Your task to perform on an android device: Add "amazon basics triple a" to the cart on bestbuy Image 0: 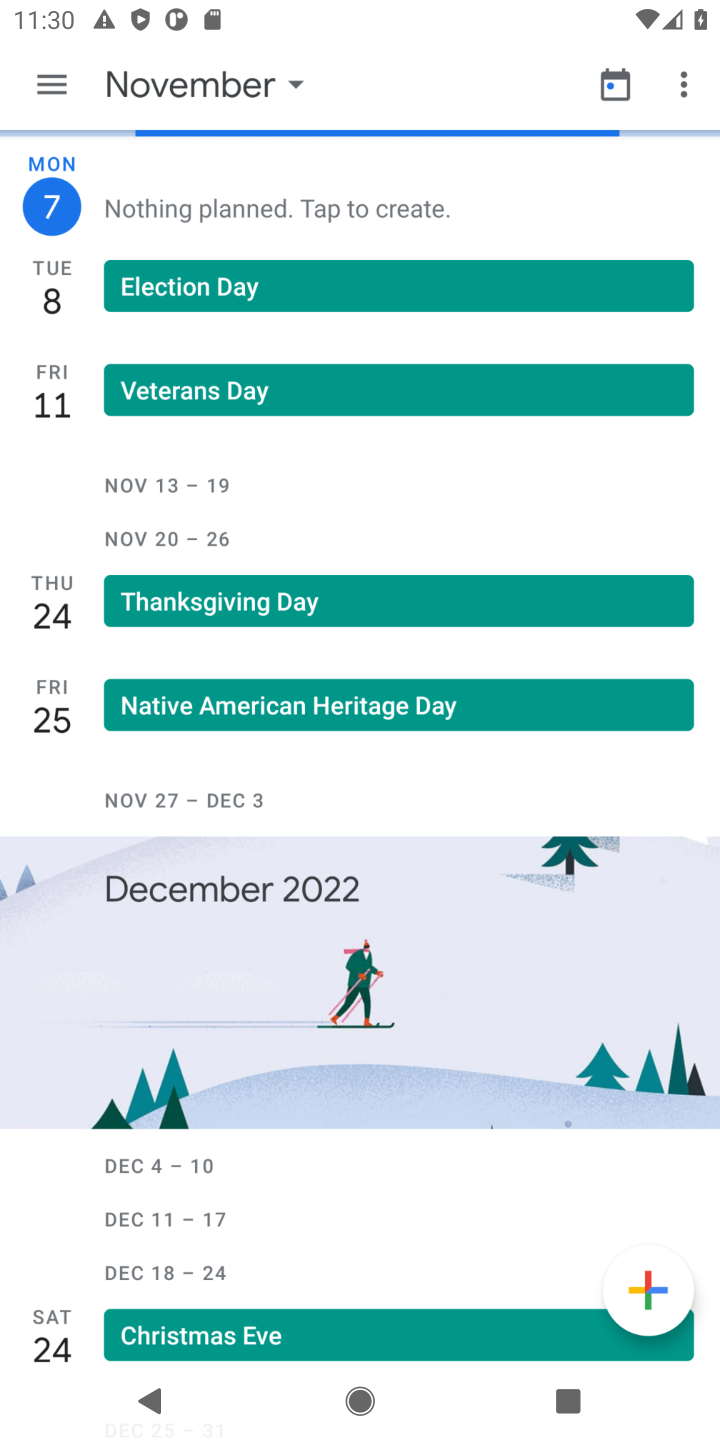
Step 0: press home button
Your task to perform on an android device: Add "amazon basics triple a" to the cart on bestbuy Image 1: 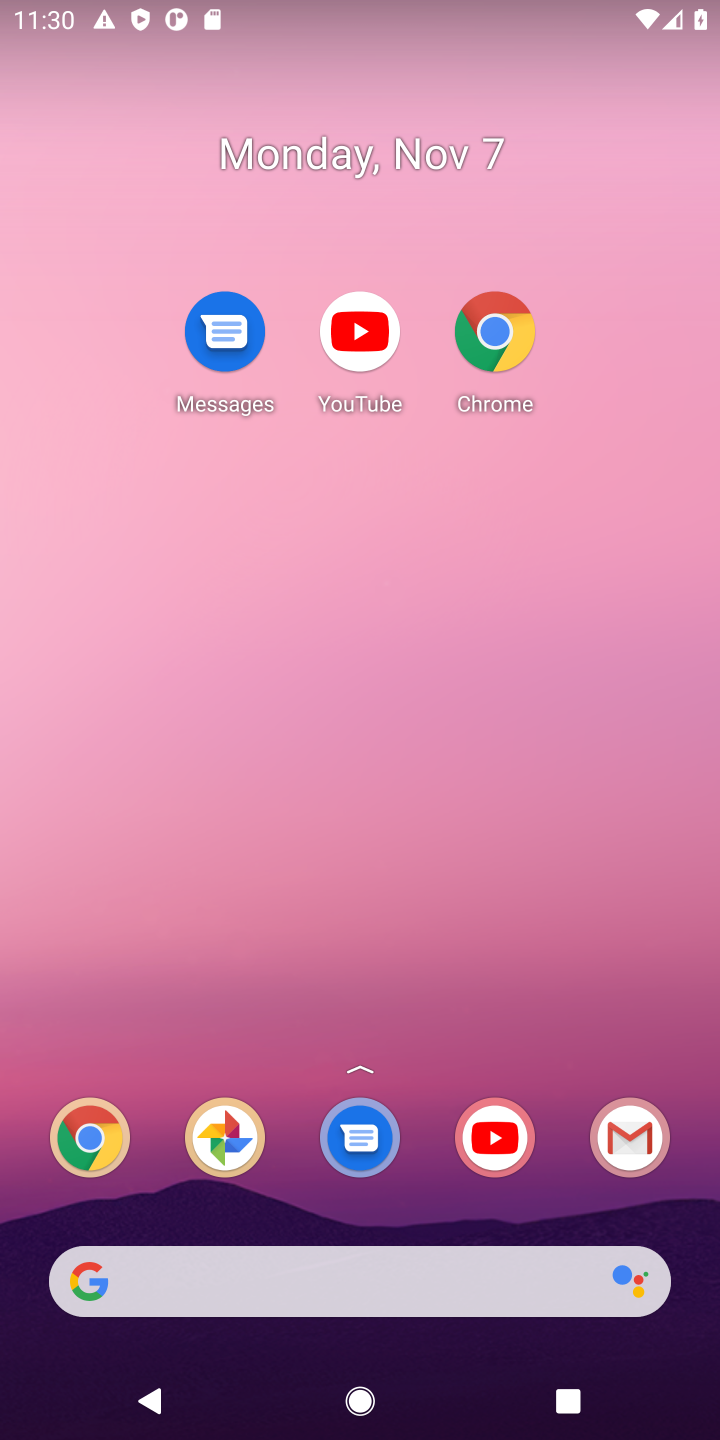
Step 1: drag from (410, 1061) to (389, 378)
Your task to perform on an android device: Add "amazon basics triple a" to the cart on bestbuy Image 2: 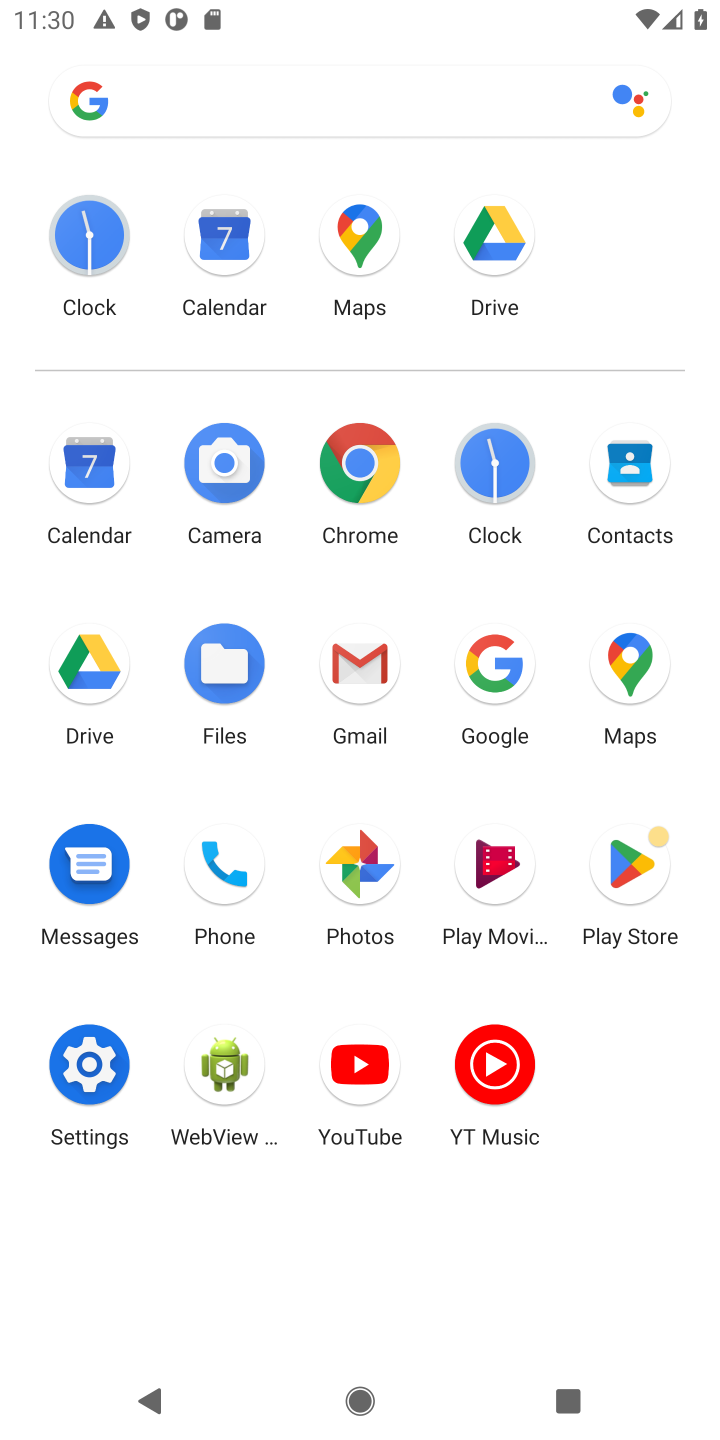
Step 2: click (357, 465)
Your task to perform on an android device: Add "amazon basics triple a" to the cart on bestbuy Image 3: 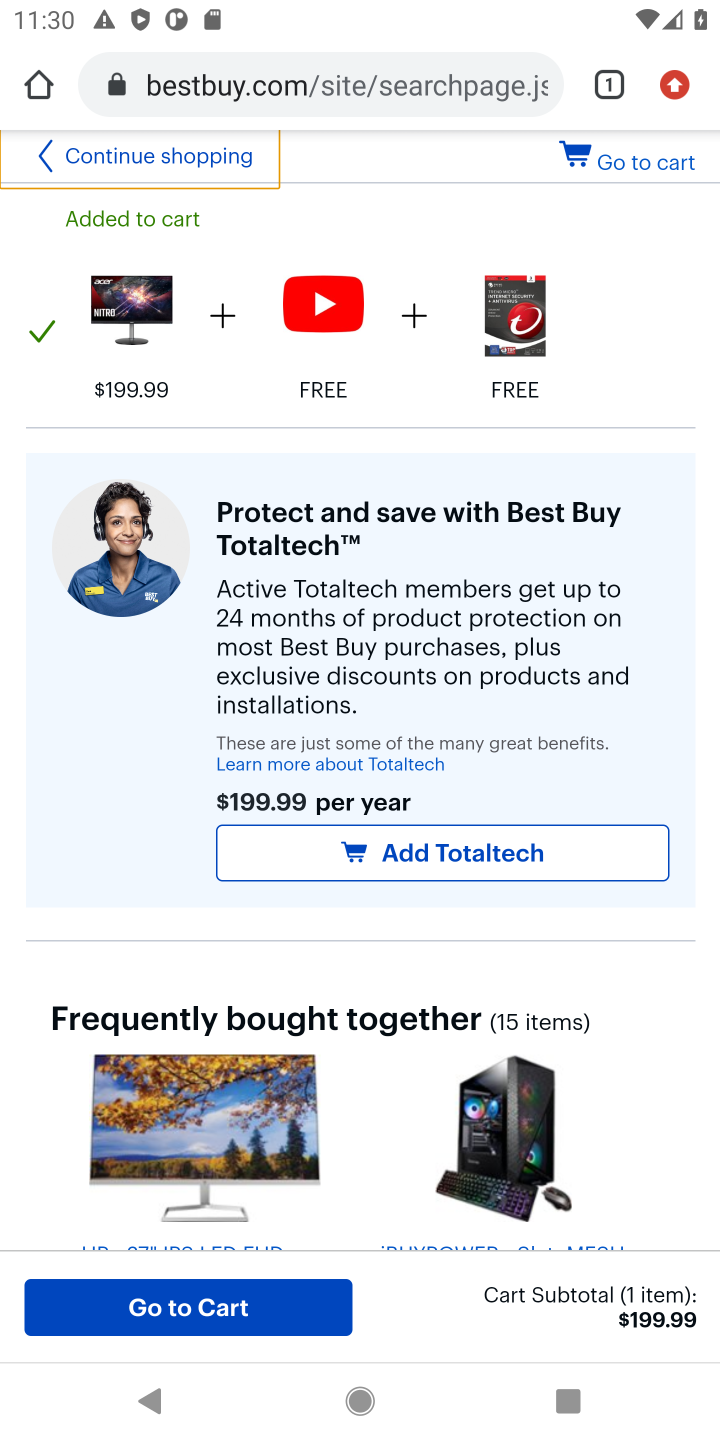
Step 3: click (406, 85)
Your task to perform on an android device: Add "amazon basics triple a" to the cart on bestbuy Image 4: 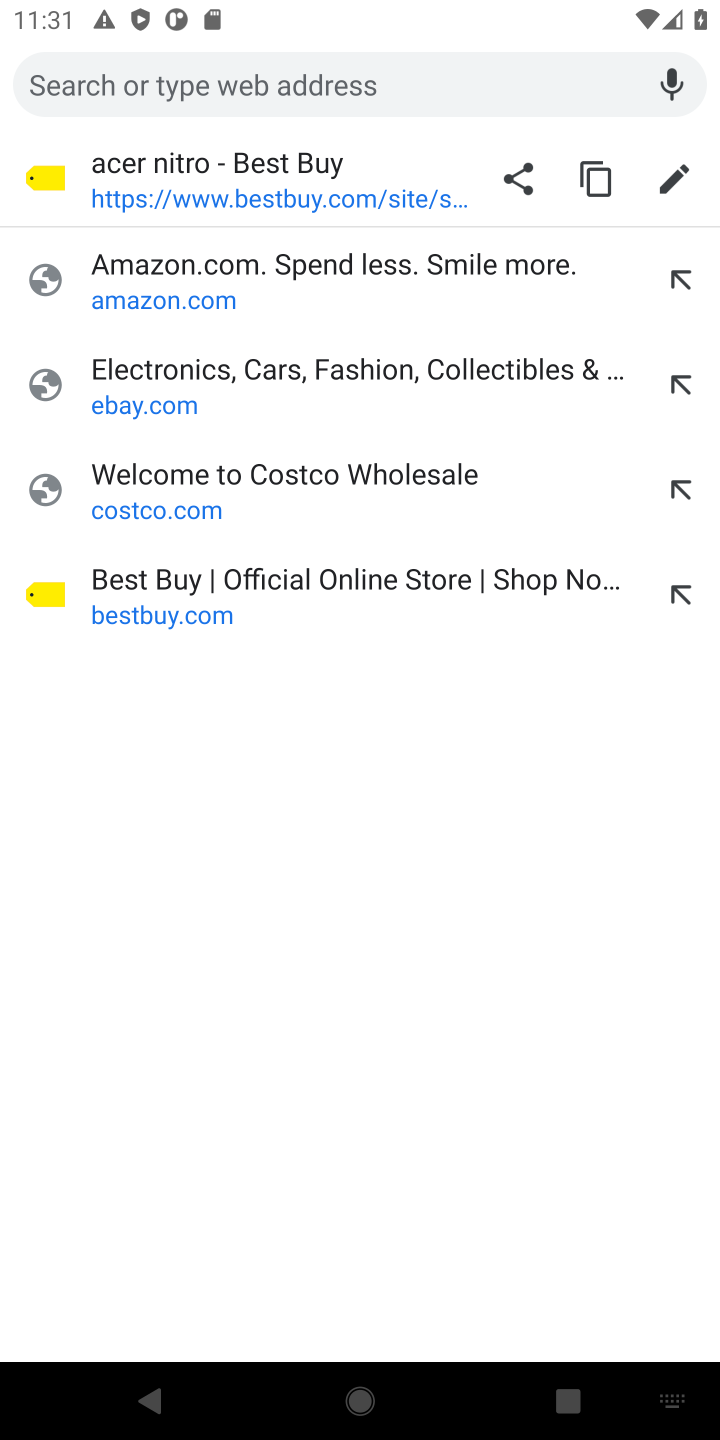
Step 4: type "bestbuy.com"
Your task to perform on an android device: Add "amazon basics triple a" to the cart on bestbuy Image 5: 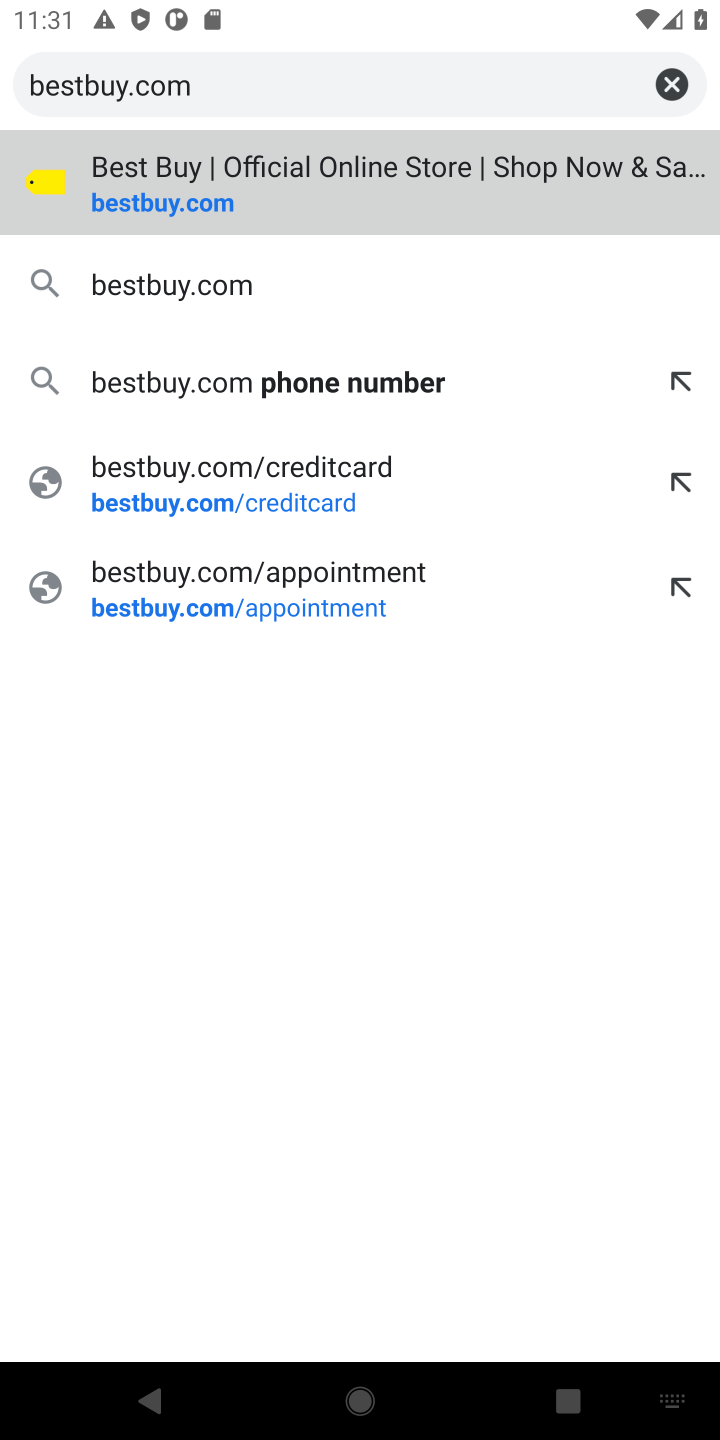
Step 5: press enter
Your task to perform on an android device: Add "amazon basics triple a" to the cart on bestbuy Image 6: 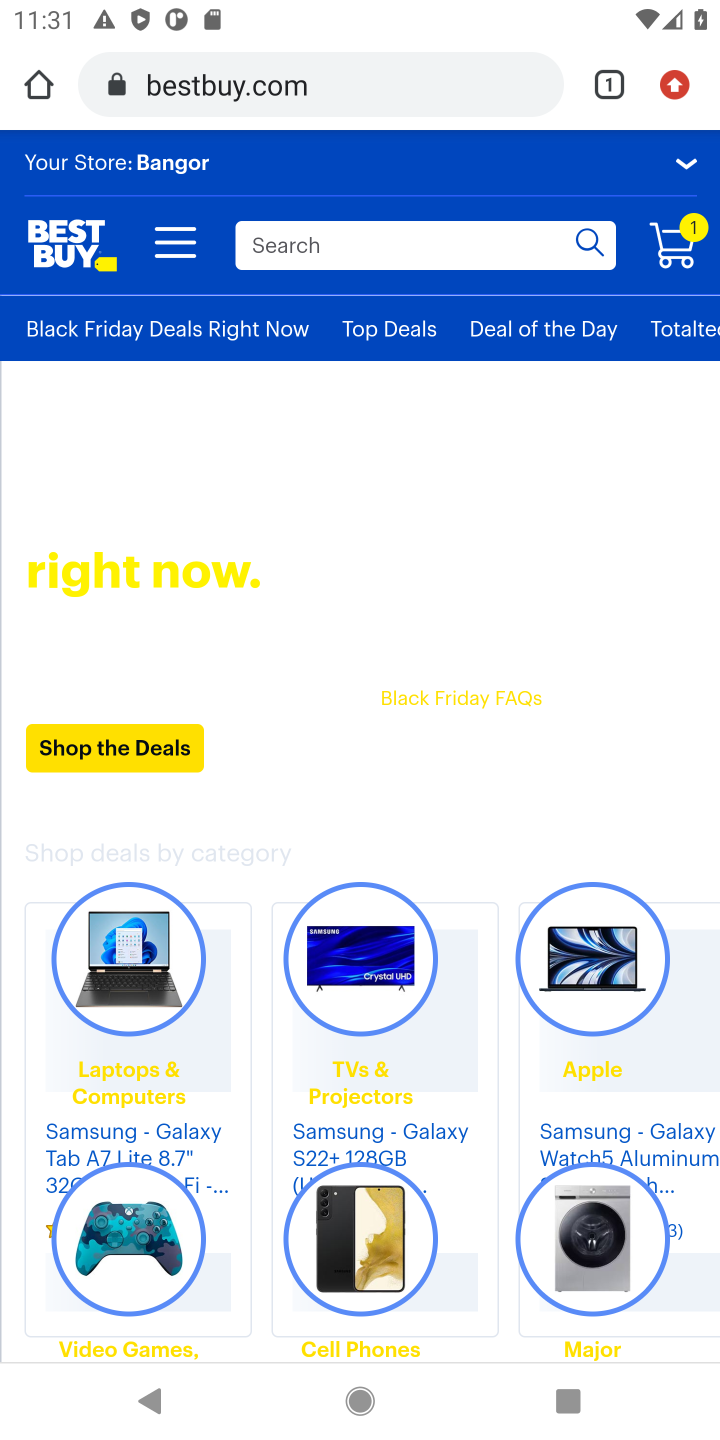
Step 6: click (408, 239)
Your task to perform on an android device: Add "amazon basics triple a" to the cart on bestbuy Image 7: 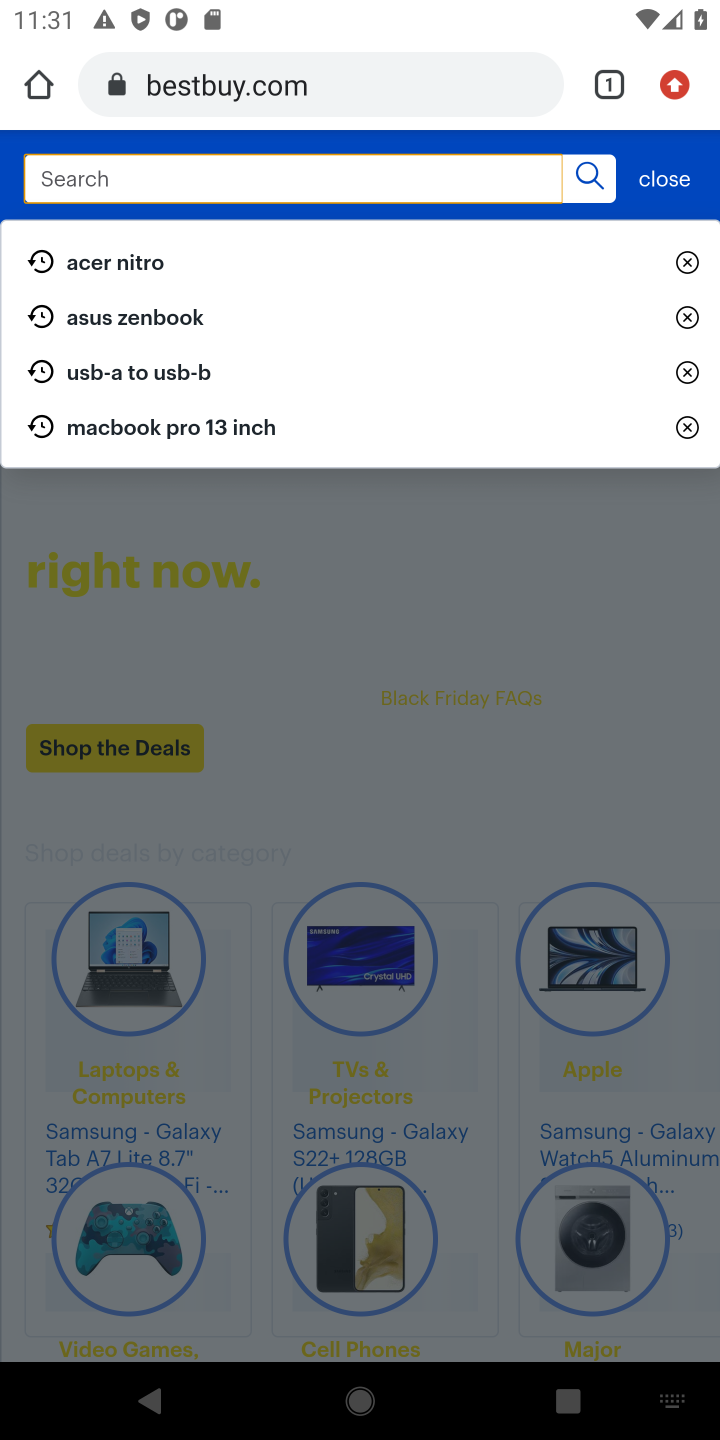
Step 7: type "amazon basic triple a"
Your task to perform on an android device: Add "amazon basics triple a" to the cart on bestbuy Image 8: 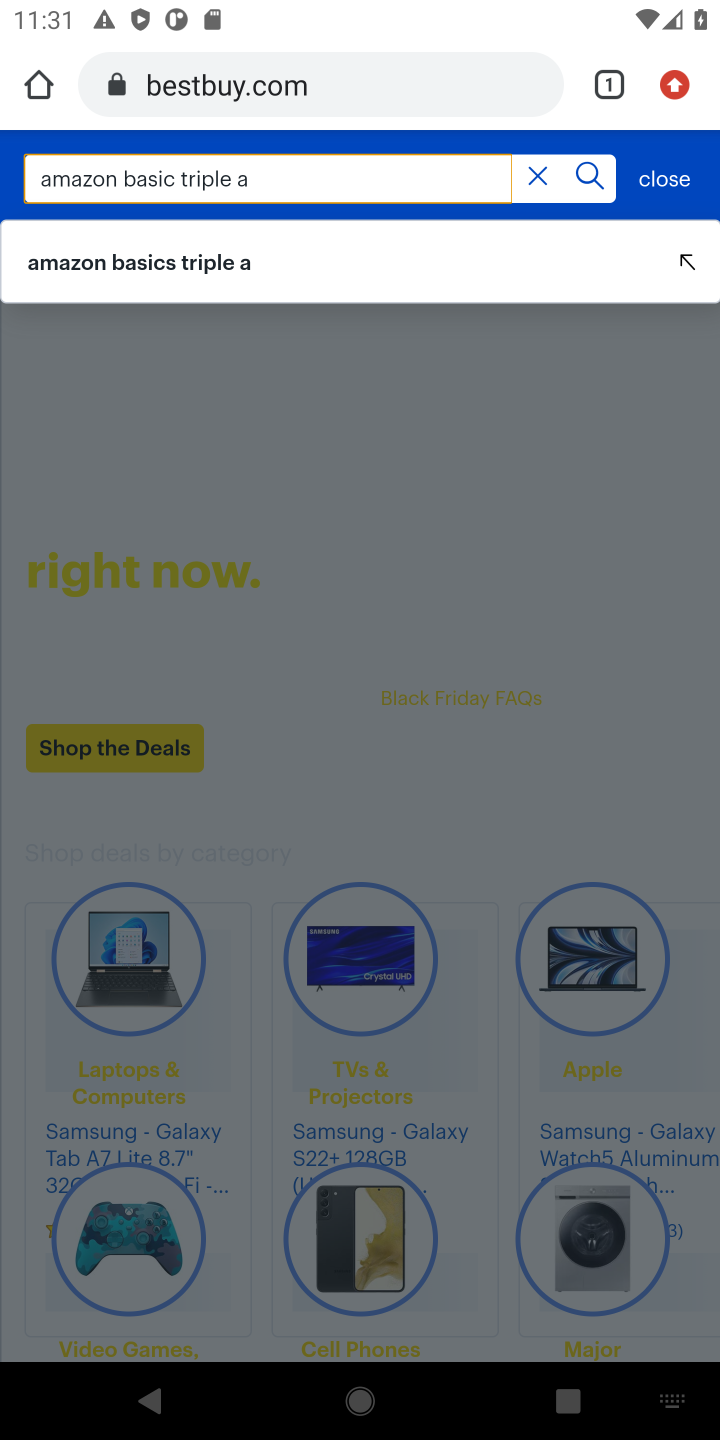
Step 8: press enter
Your task to perform on an android device: Add "amazon basics triple a" to the cart on bestbuy Image 9: 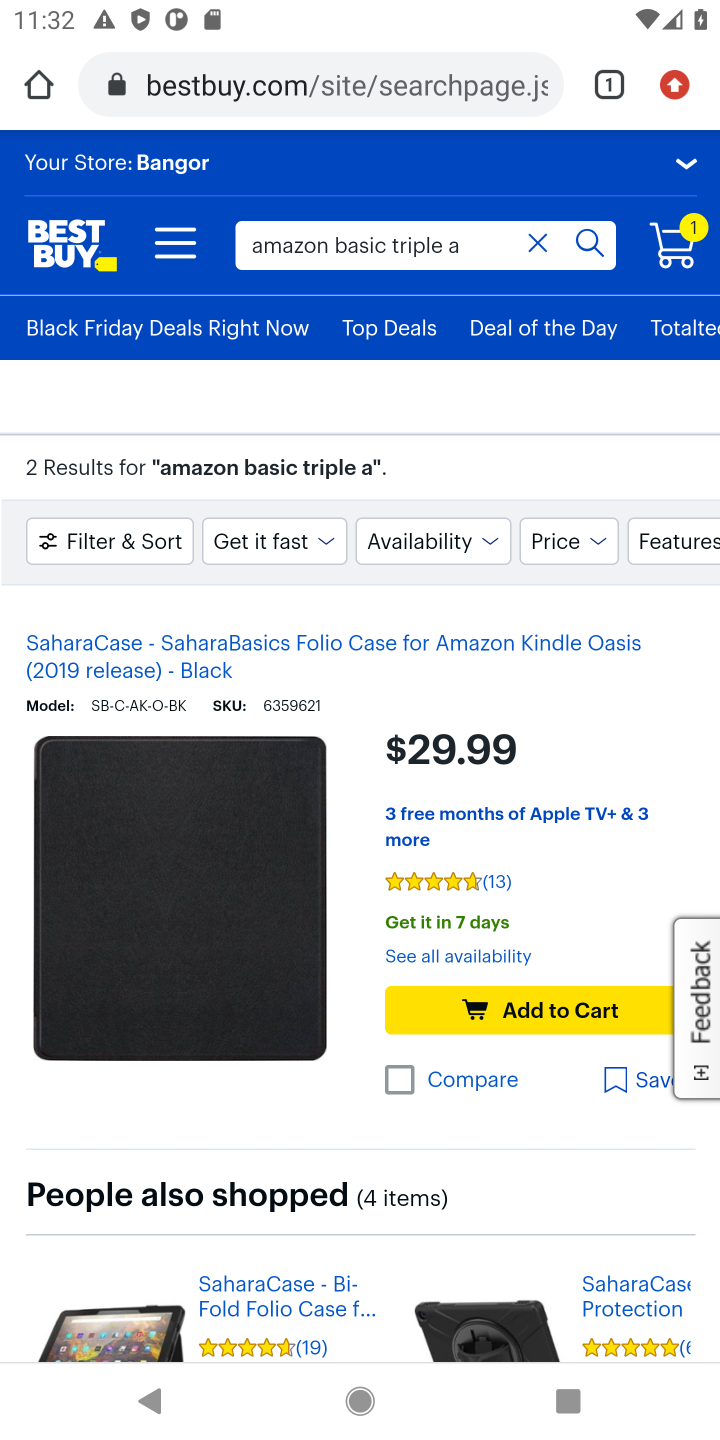
Step 9: task complete